Your task to perform on an android device: Is it going to rain tomorrow? Image 0: 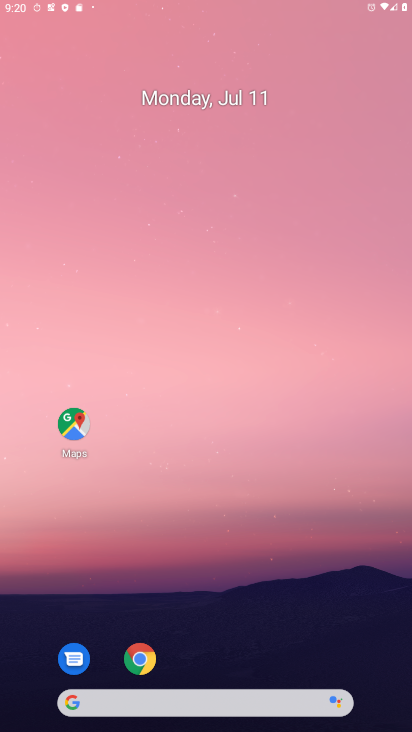
Step 0: click (273, 49)
Your task to perform on an android device: Is it going to rain tomorrow? Image 1: 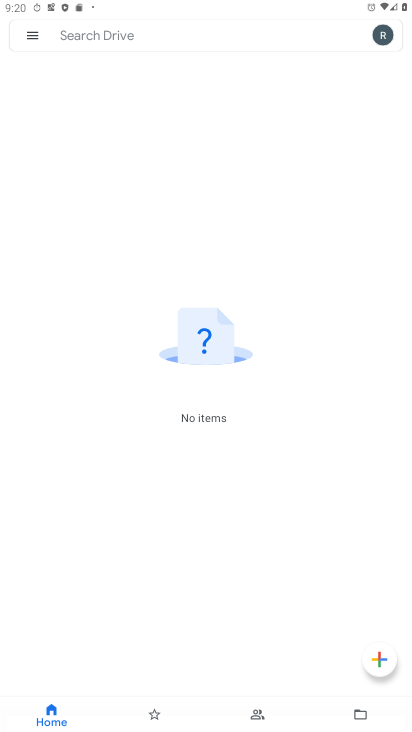
Step 1: press home button
Your task to perform on an android device: Is it going to rain tomorrow? Image 2: 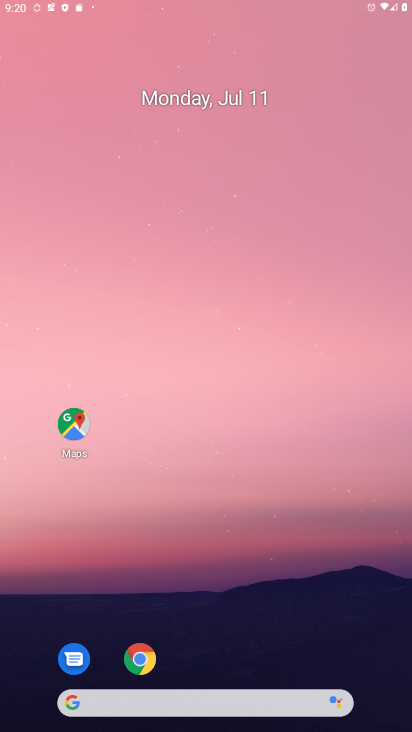
Step 2: drag from (188, 626) to (319, 148)
Your task to perform on an android device: Is it going to rain tomorrow? Image 3: 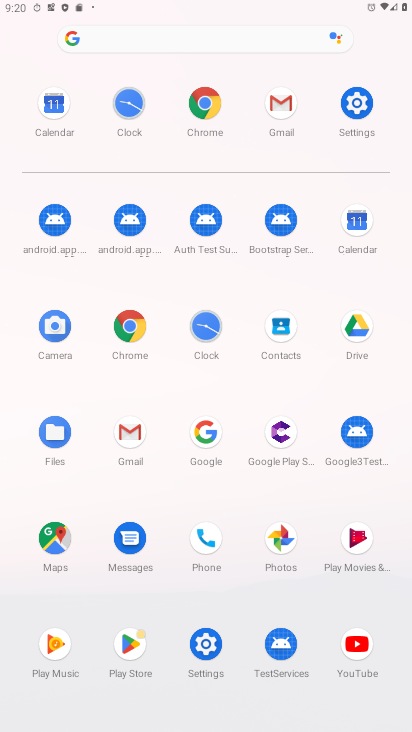
Step 3: click (141, 34)
Your task to perform on an android device: Is it going to rain tomorrow? Image 4: 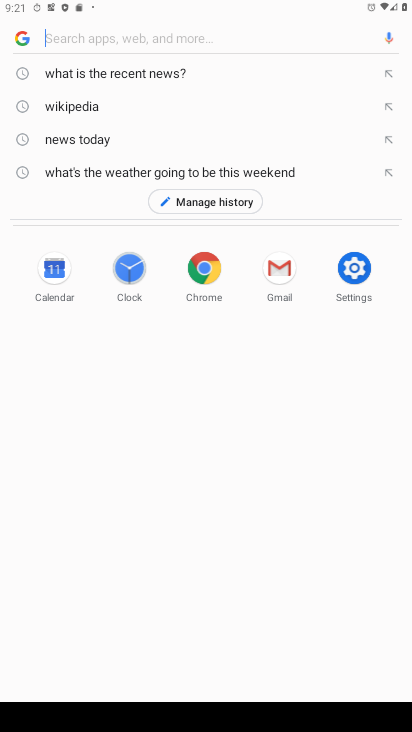
Step 4: type "Is it going to rain tomorrow?"
Your task to perform on an android device: Is it going to rain tomorrow? Image 5: 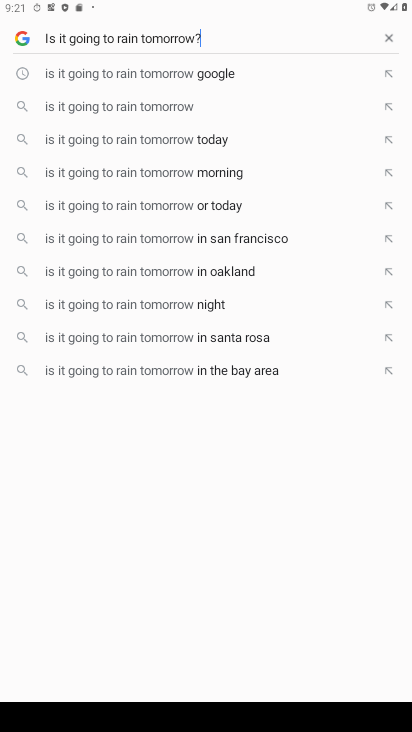
Step 5: type ""
Your task to perform on an android device: Is it going to rain tomorrow? Image 6: 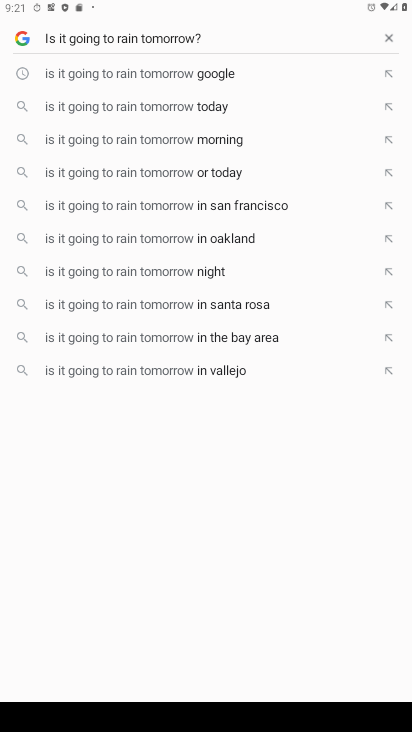
Step 6: click (223, 76)
Your task to perform on an android device: Is it going to rain tomorrow? Image 7: 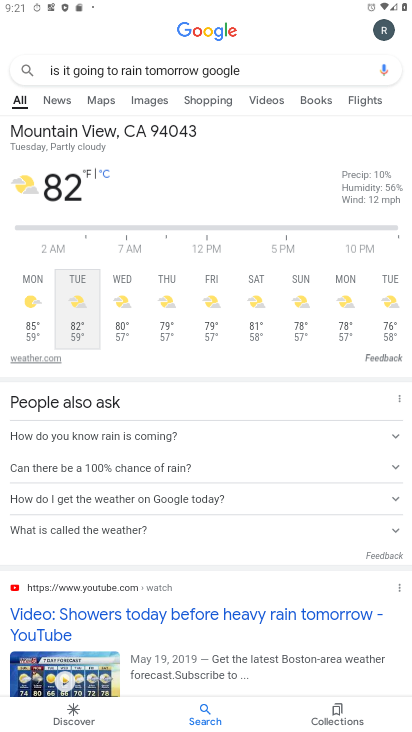
Step 7: task complete